Your task to perform on an android device: all mails in gmail Image 0: 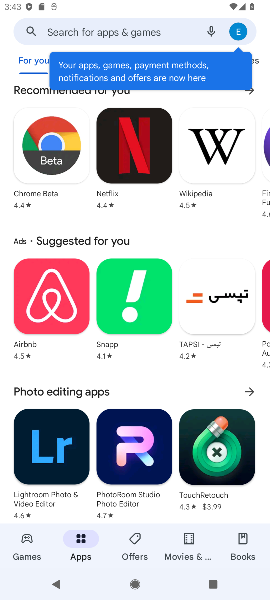
Step 0: press home button
Your task to perform on an android device: all mails in gmail Image 1: 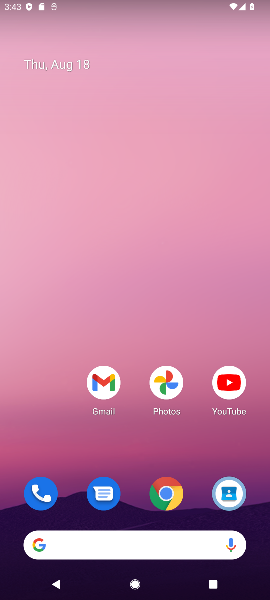
Step 1: drag from (130, 501) to (141, 48)
Your task to perform on an android device: all mails in gmail Image 2: 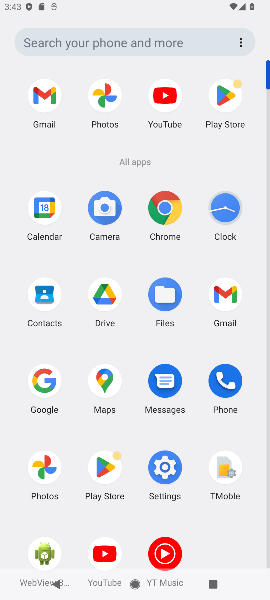
Step 2: click (36, 94)
Your task to perform on an android device: all mails in gmail Image 3: 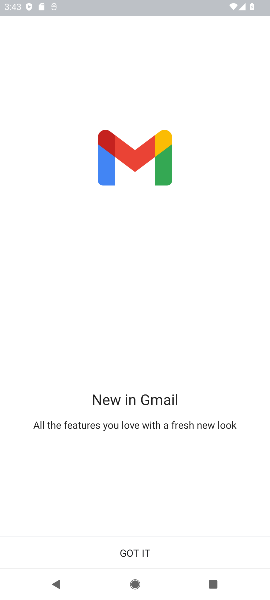
Step 3: click (130, 553)
Your task to perform on an android device: all mails in gmail Image 4: 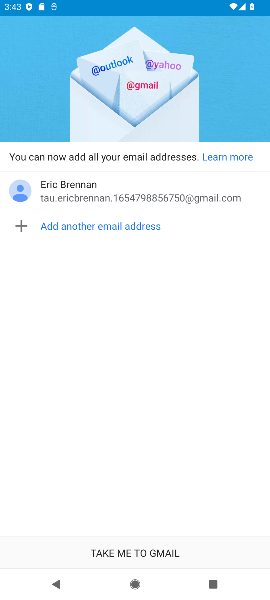
Step 4: click (130, 553)
Your task to perform on an android device: all mails in gmail Image 5: 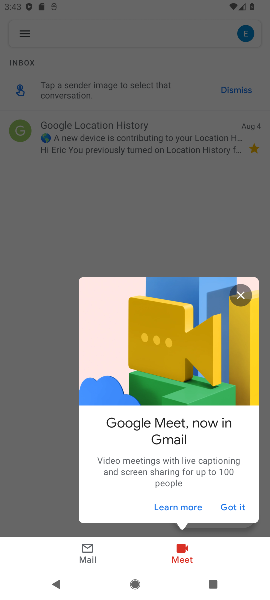
Step 5: click (244, 289)
Your task to perform on an android device: all mails in gmail Image 6: 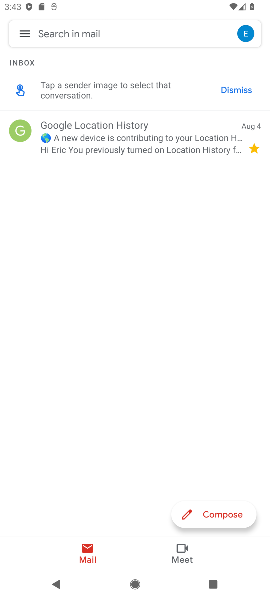
Step 6: click (16, 34)
Your task to perform on an android device: all mails in gmail Image 7: 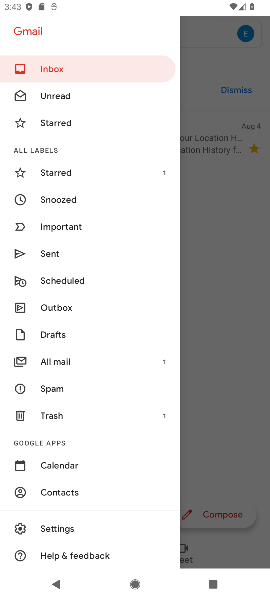
Step 7: click (58, 356)
Your task to perform on an android device: all mails in gmail Image 8: 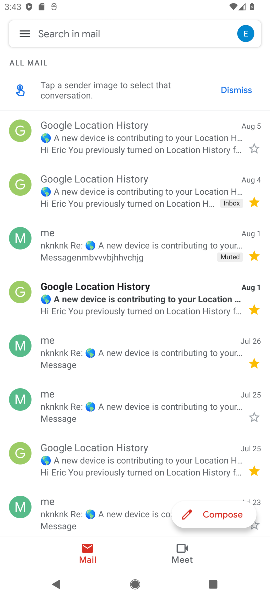
Step 8: task complete